Your task to perform on an android device: toggle translation in the chrome app Image 0: 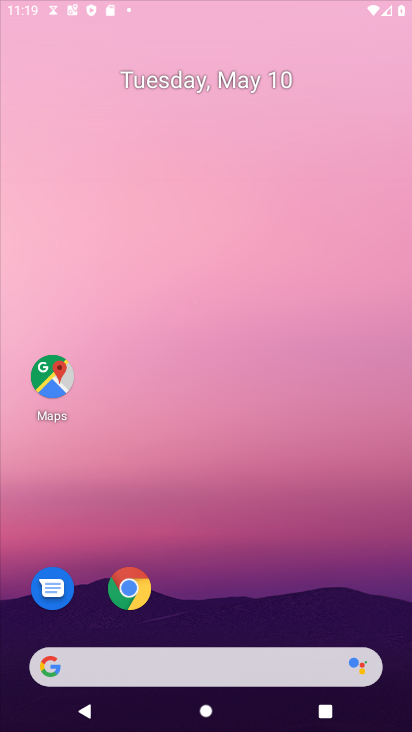
Step 0: click (25, 48)
Your task to perform on an android device: toggle translation in the chrome app Image 1: 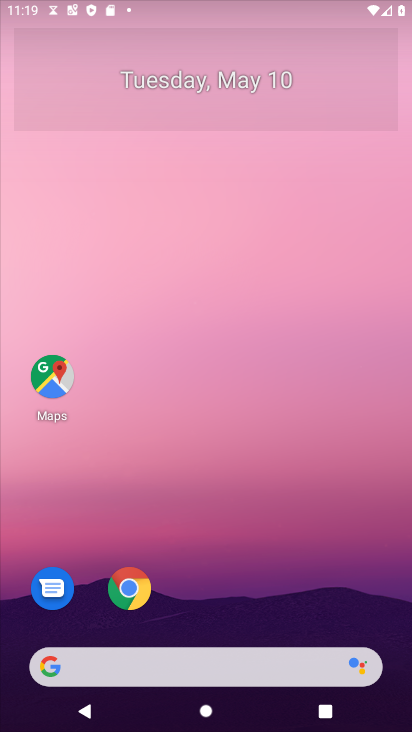
Step 1: drag from (319, 627) to (203, 254)
Your task to perform on an android device: toggle translation in the chrome app Image 2: 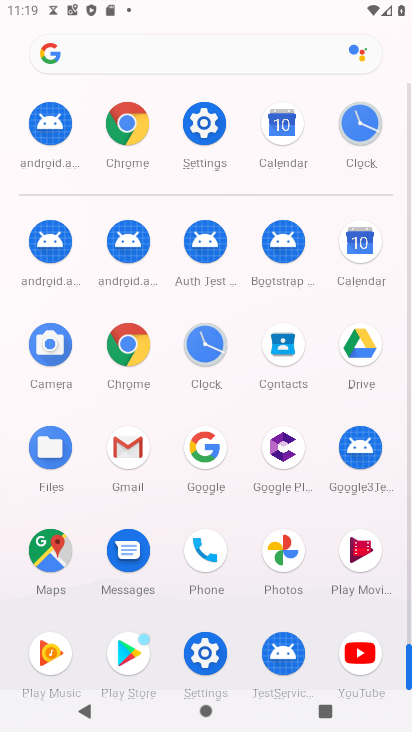
Step 2: click (136, 348)
Your task to perform on an android device: toggle translation in the chrome app Image 3: 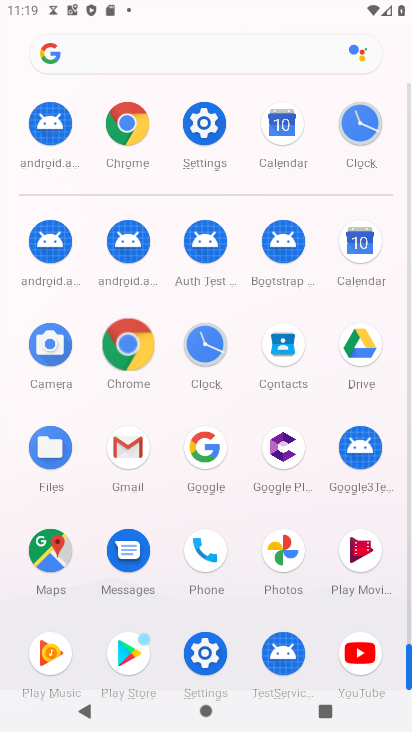
Step 3: click (138, 346)
Your task to perform on an android device: toggle translation in the chrome app Image 4: 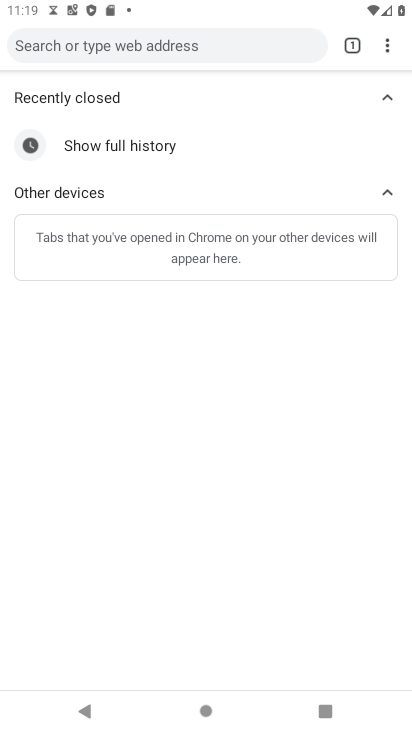
Step 4: drag from (374, 44) to (211, 386)
Your task to perform on an android device: toggle translation in the chrome app Image 5: 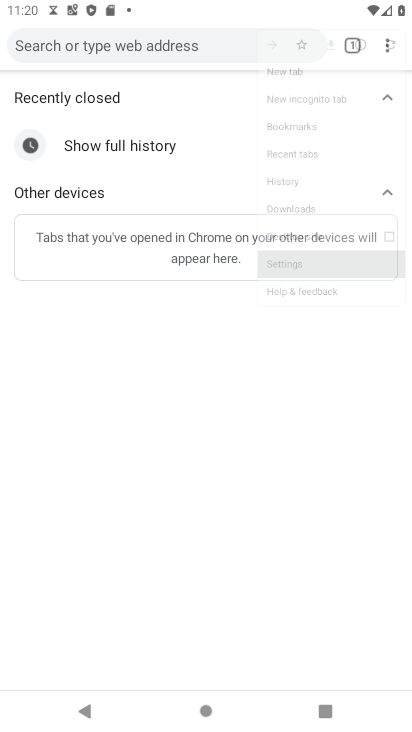
Step 5: click (207, 380)
Your task to perform on an android device: toggle translation in the chrome app Image 6: 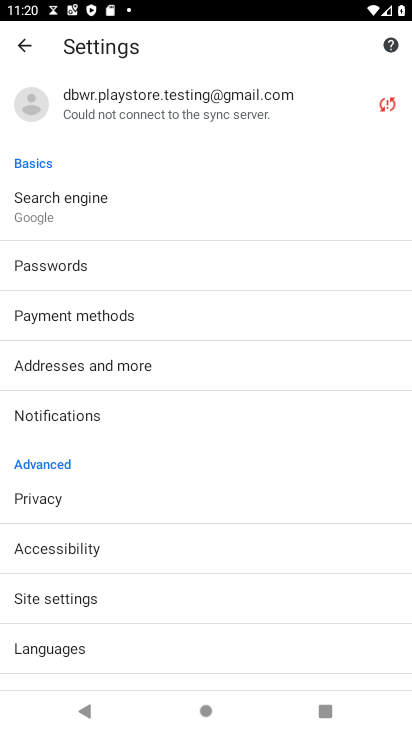
Step 6: click (44, 596)
Your task to perform on an android device: toggle translation in the chrome app Image 7: 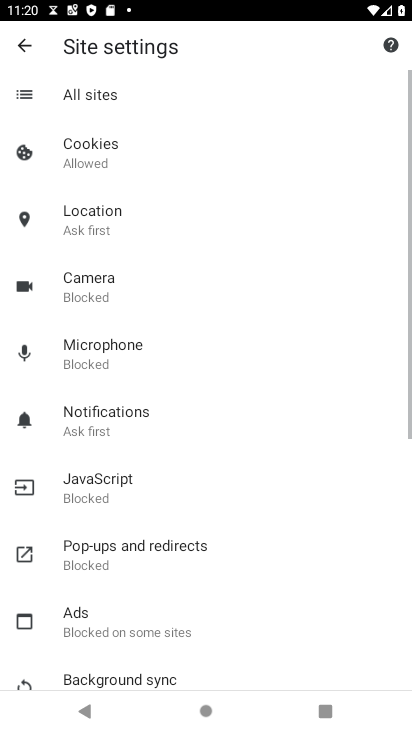
Step 7: click (24, 38)
Your task to perform on an android device: toggle translation in the chrome app Image 8: 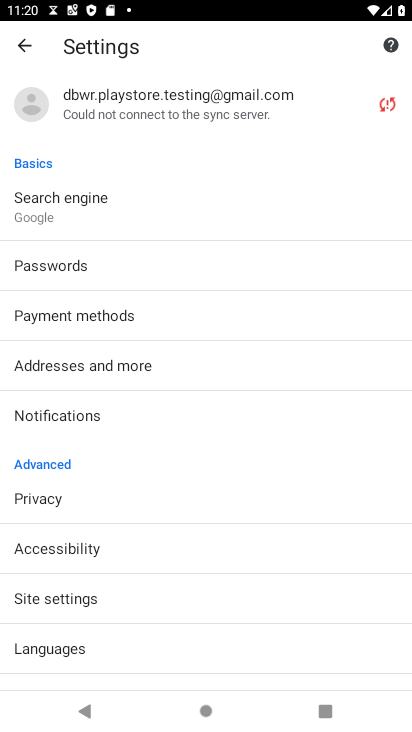
Step 8: click (46, 652)
Your task to perform on an android device: toggle translation in the chrome app Image 9: 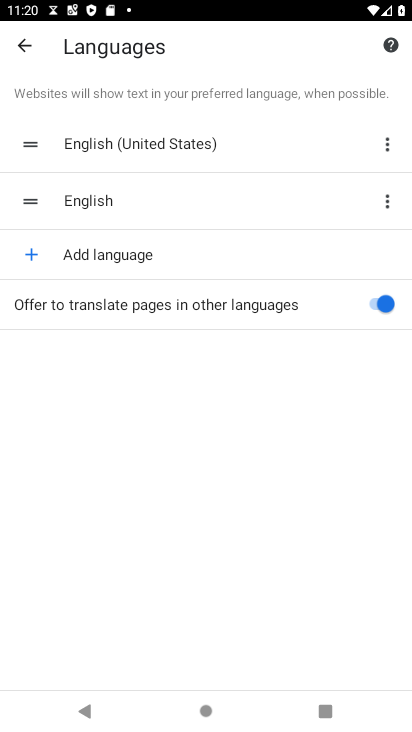
Step 9: click (389, 299)
Your task to perform on an android device: toggle translation in the chrome app Image 10: 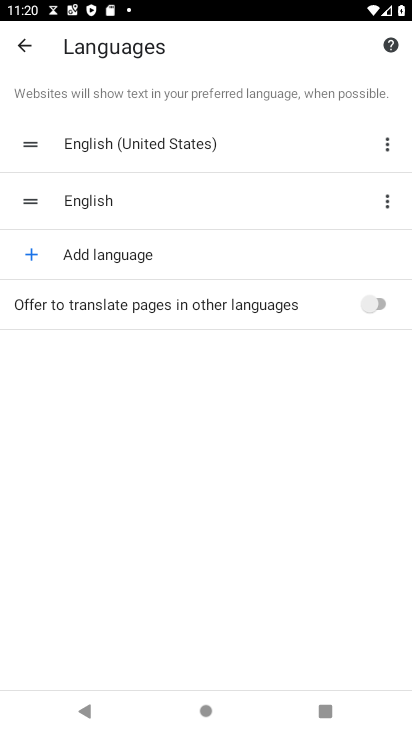
Step 10: task complete